Your task to perform on an android device: Do I have any events today? Image 0: 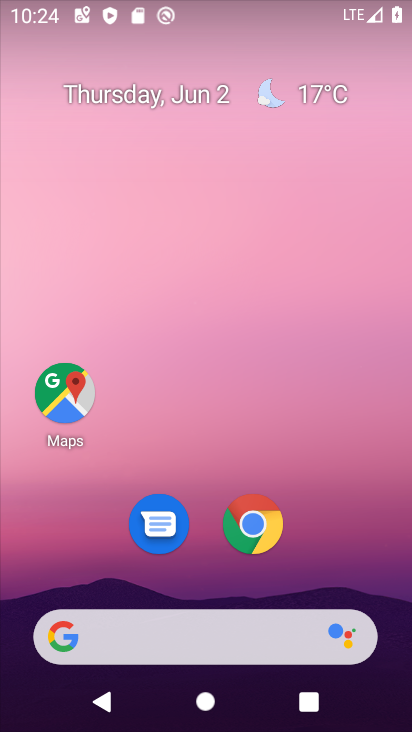
Step 0: click (226, 647)
Your task to perform on an android device: Do I have any events today? Image 1: 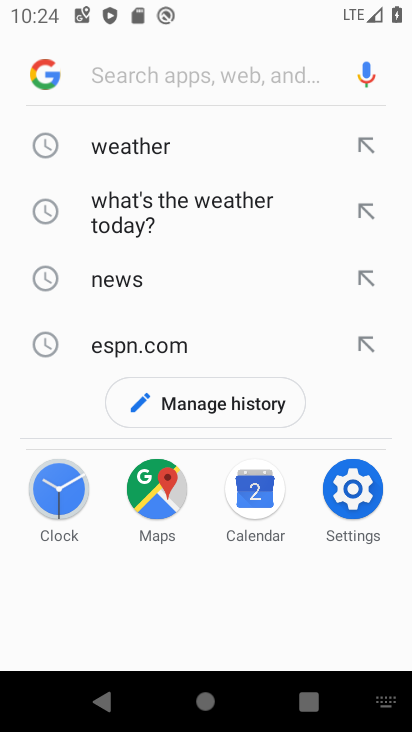
Step 1: press home button
Your task to perform on an android device: Do I have any events today? Image 2: 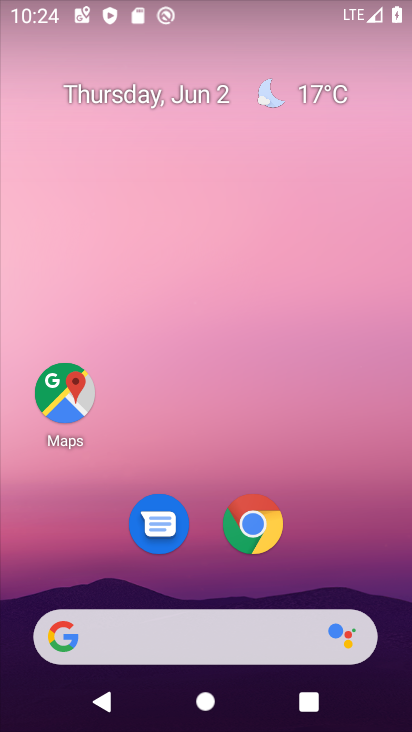
Step 2: drag from (194, 461) to (218, 13)
Your task to perform on an android device: Do I have any events today? Image 3: 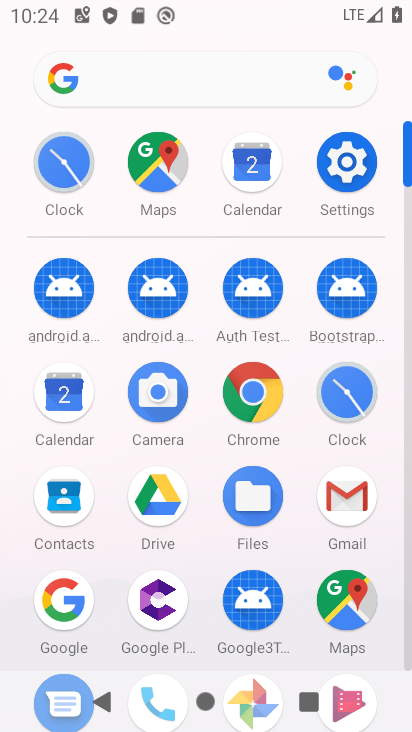
Step 3: click (76, 390)
Your task to perform on an android device: Do I have any events today? Image 4: 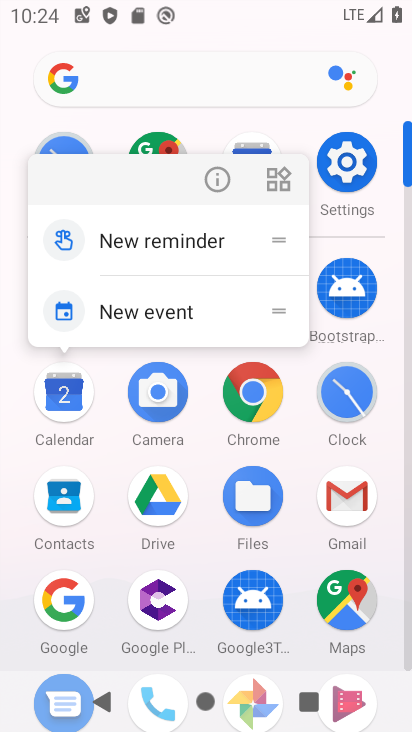
Step 4: click (68, 397)
Your task to perform on an android device: Do I have any events today? Image 5: 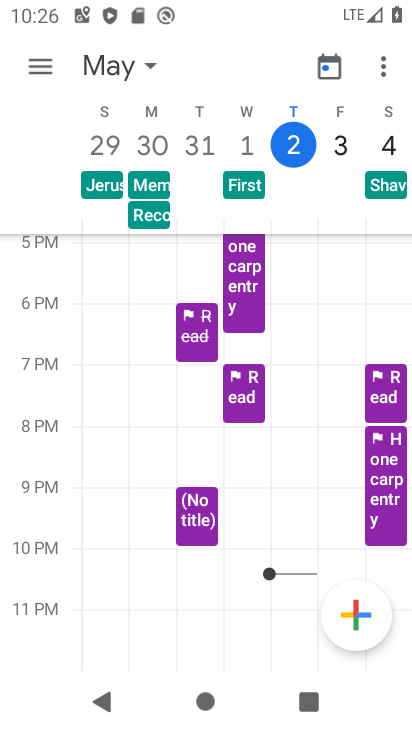
Step 5: click (292, 141)
Your task to perform on an android device: Do I have any events today? Image 6: 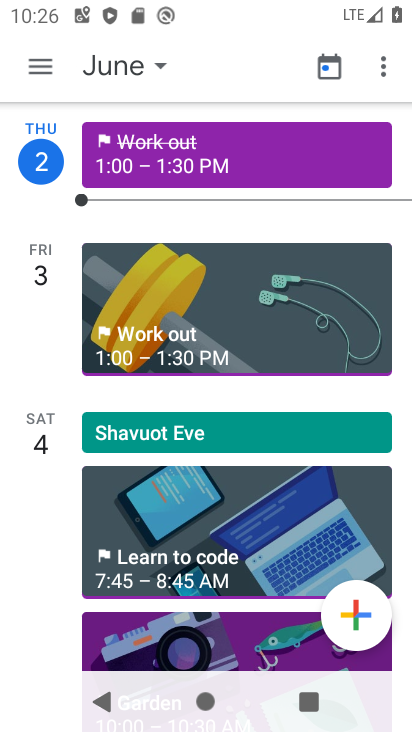
Step 6: task complete